Your task to perform on an android device: Open Google Maps Image 0: 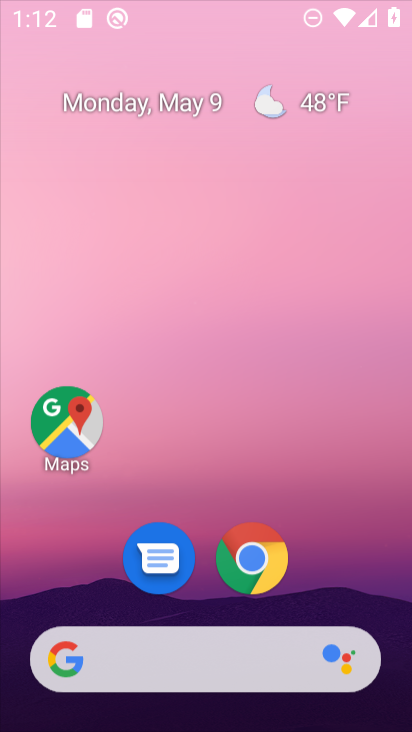
Step 0: click (385, 529)
Your task to perform on an android device: Open Google Maps Image 1: 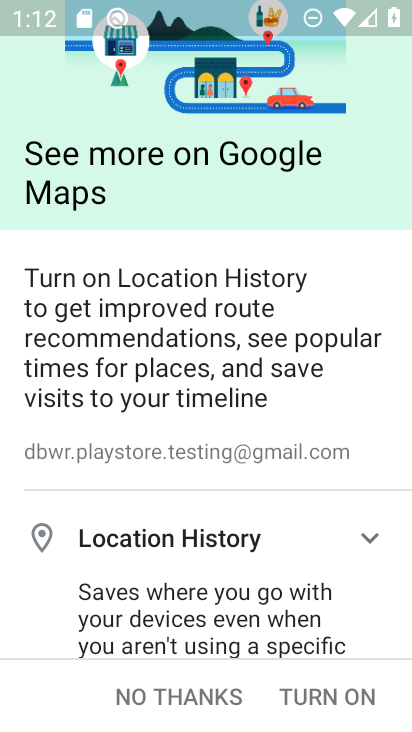
Step 1: drag from (201, 580) to (246, 209)
Your task to perform on an android device: Open Google Maps Image 2: 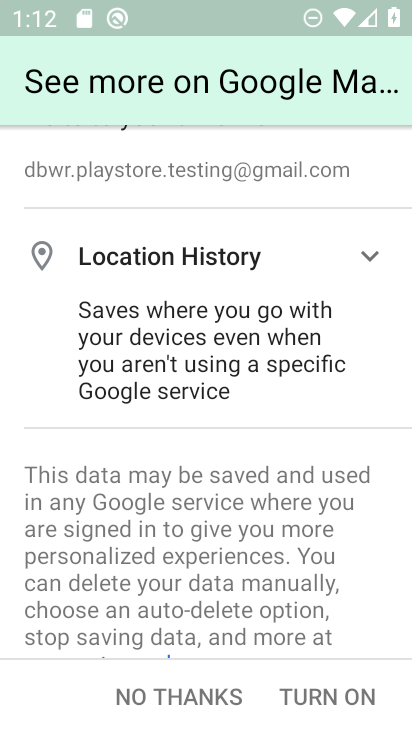
Step 2: click (169, 705)
Your task to perform on an android device: Open Google Maps Image 3: 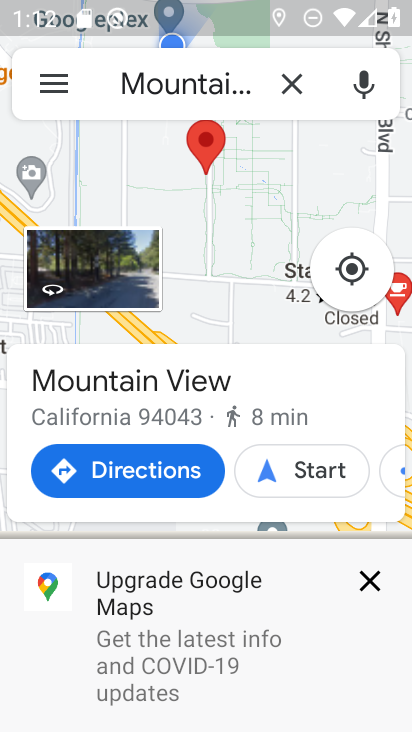
Step 3: click (362, 598)
Your task to perform on an android device: Open Google Maps Image 4: 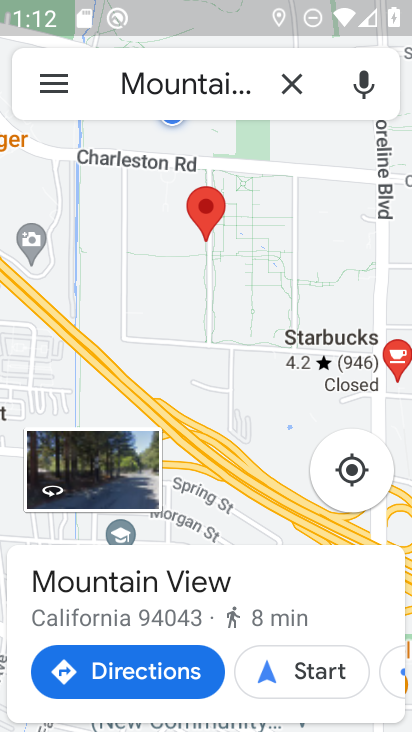
Step 4: task complete